Your task to perform on an android device: turn off location Image 0: 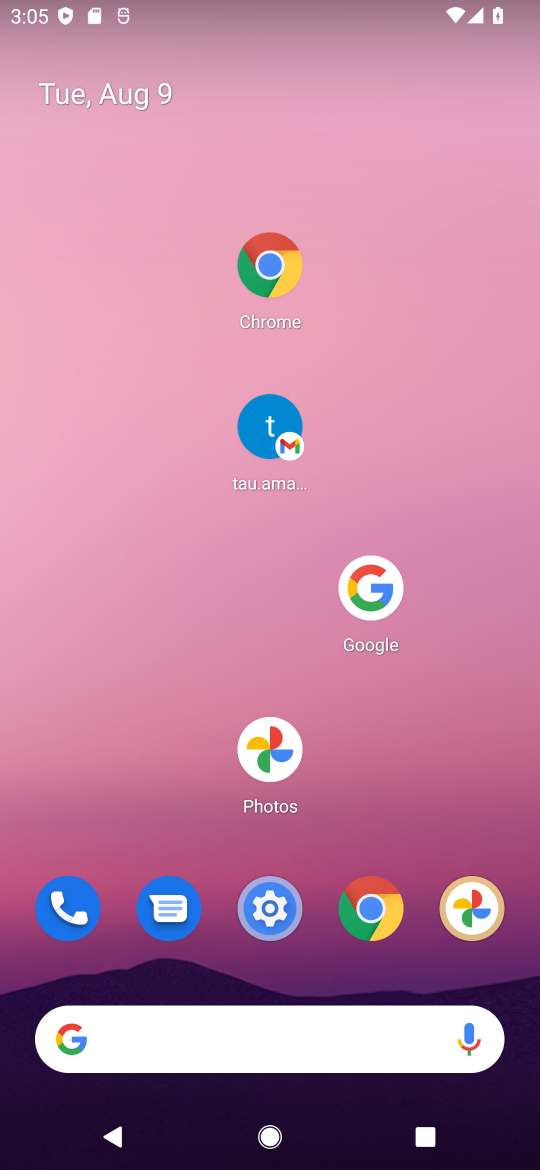
Step 0: click (231, 164)
Your task to perform on an android device: turn off location Image 1: 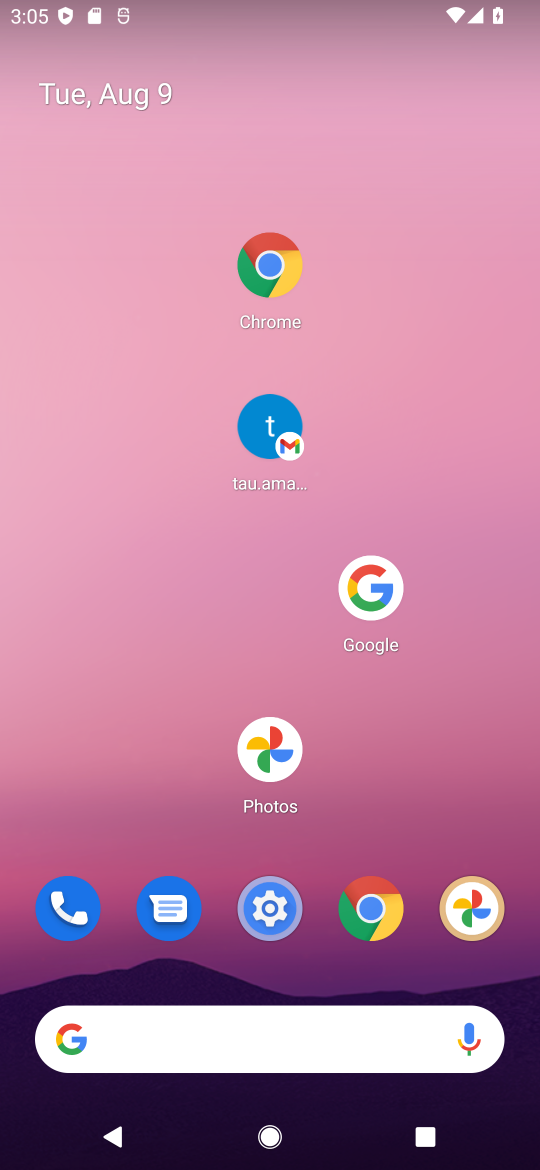
Step 1: drag from (350, 858) to (261, 196)
Your task to perform on an android device: turn off location Image 2: 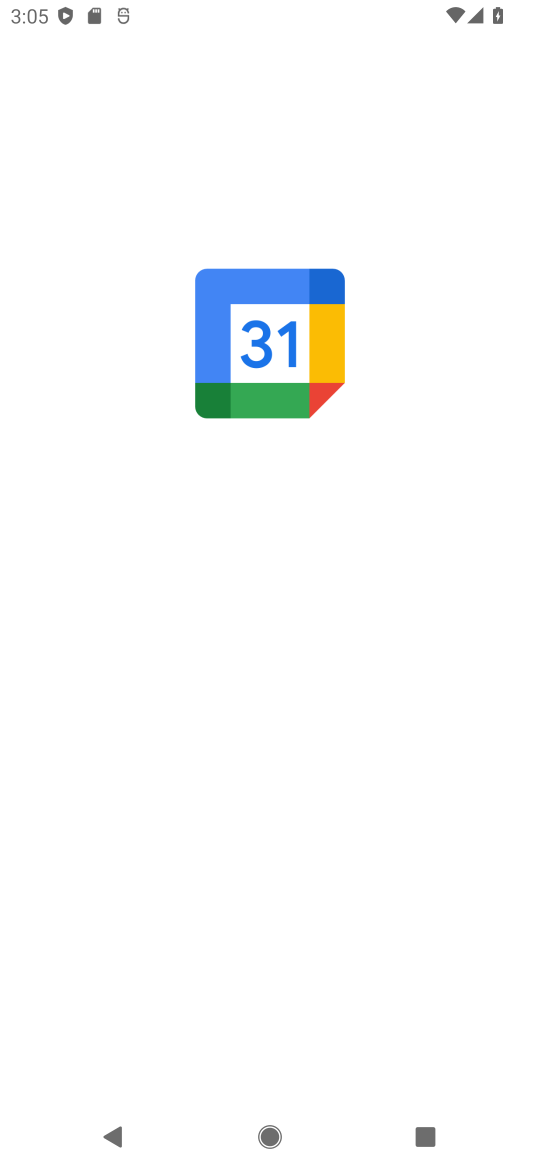
Step 2: drag from (253, 972) to (292, 282)
Your task to perform on an android device: turn off location Image 3: 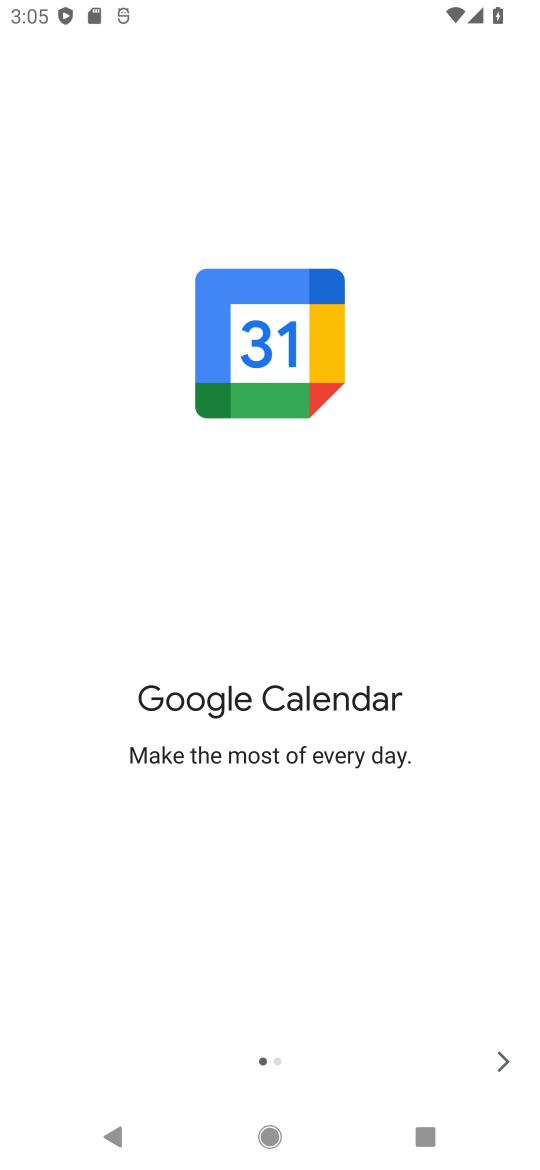
Step 3: drag from (328, 803) to (325, 371)
Your task to perform on an android device: turn off location Image 4: 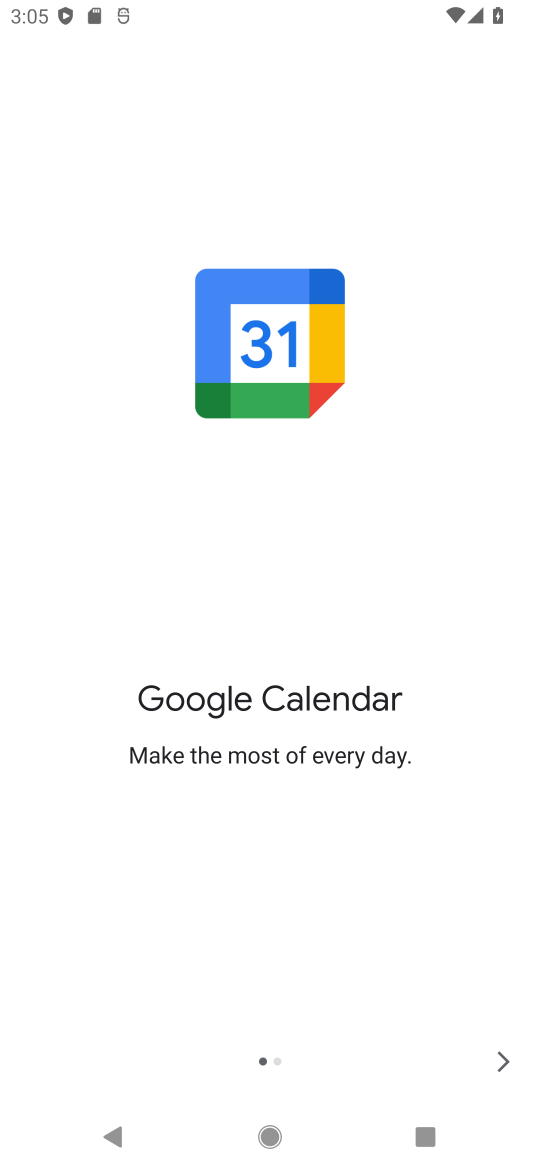
Step 4: click (358, 370)
Your task to perform on an android device: turn off location Image 5: 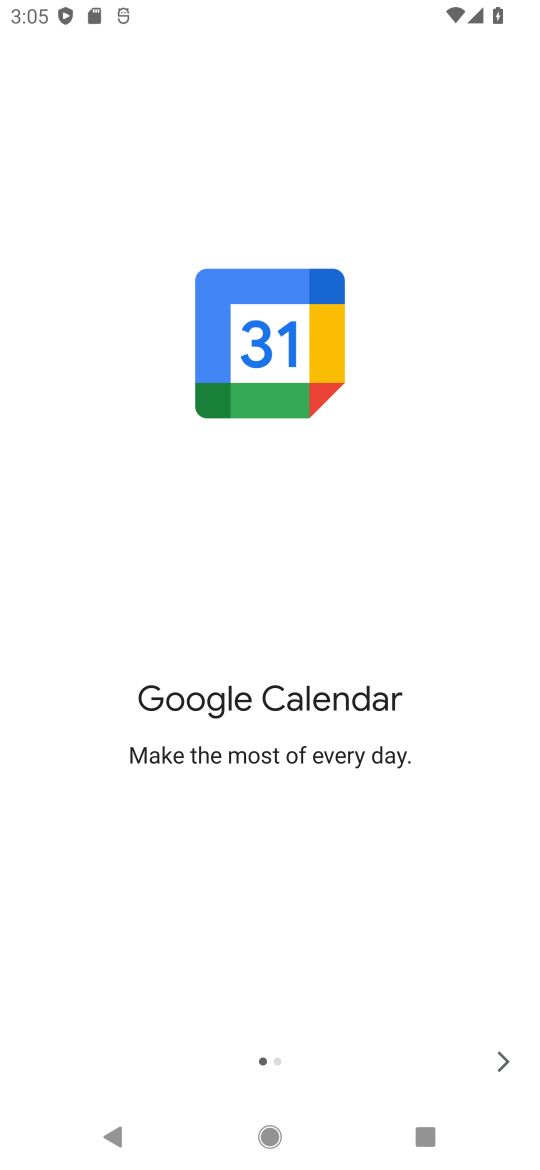
Step 5: drag from (345, 788) to (270, 169)
Your task to perform on an android device: turn off location Image 6: 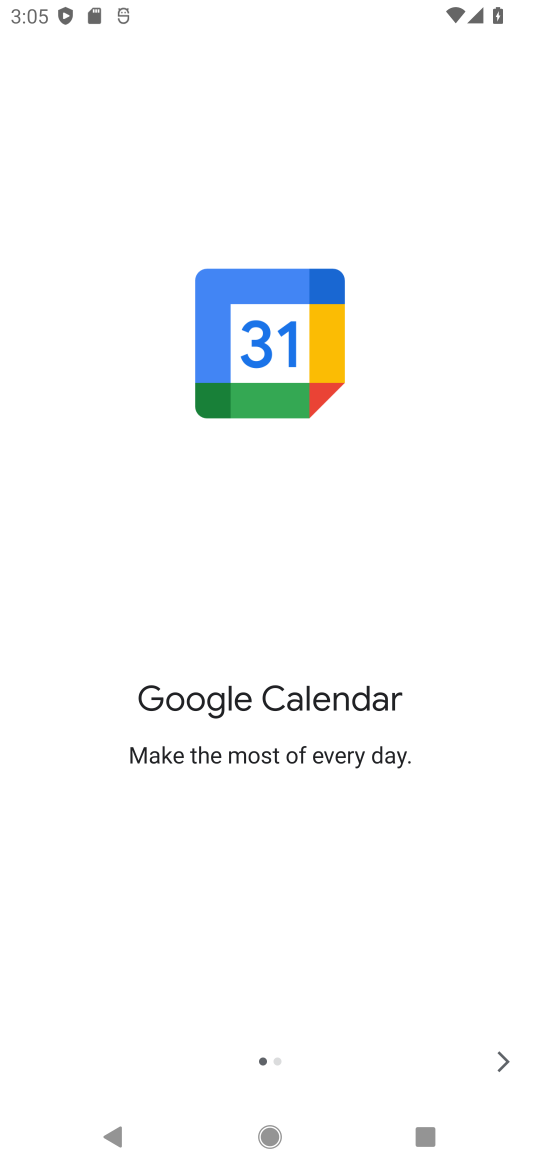
Step 6: press back button
Your task to perform on an android device: turn off location Image 7: 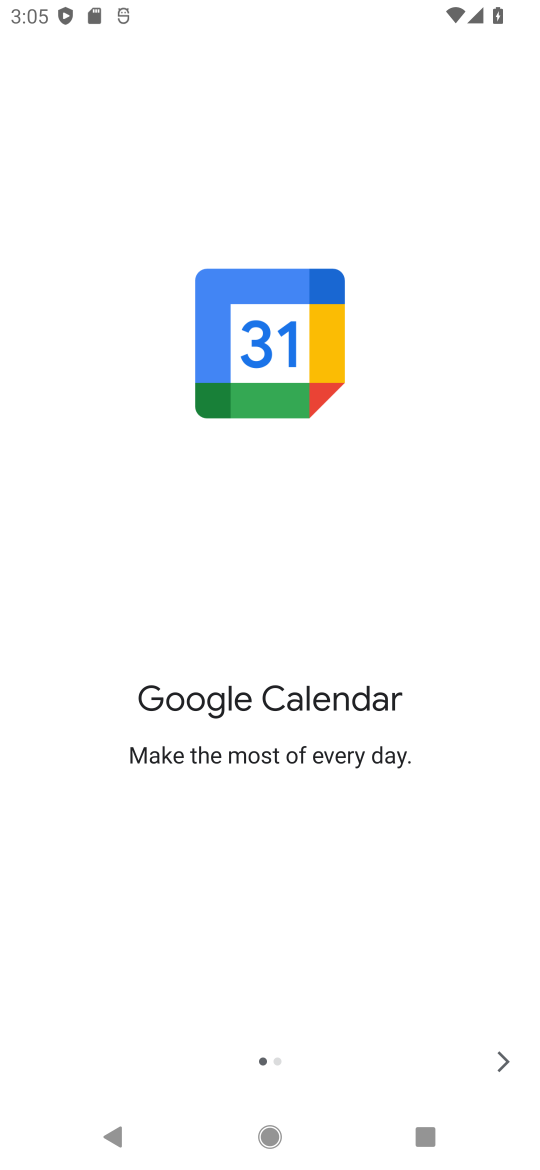
Step 7: press back button
Your task to perform on an android device: turn off location Image 8: 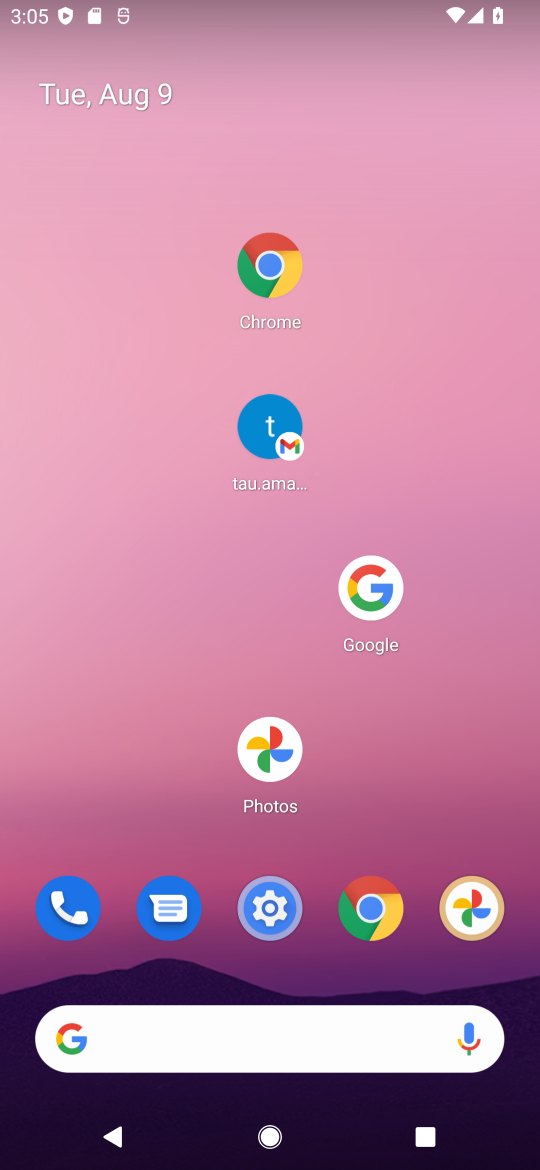
Step 8: press back button
Your task to perform on an android device: turn off location Image 9: 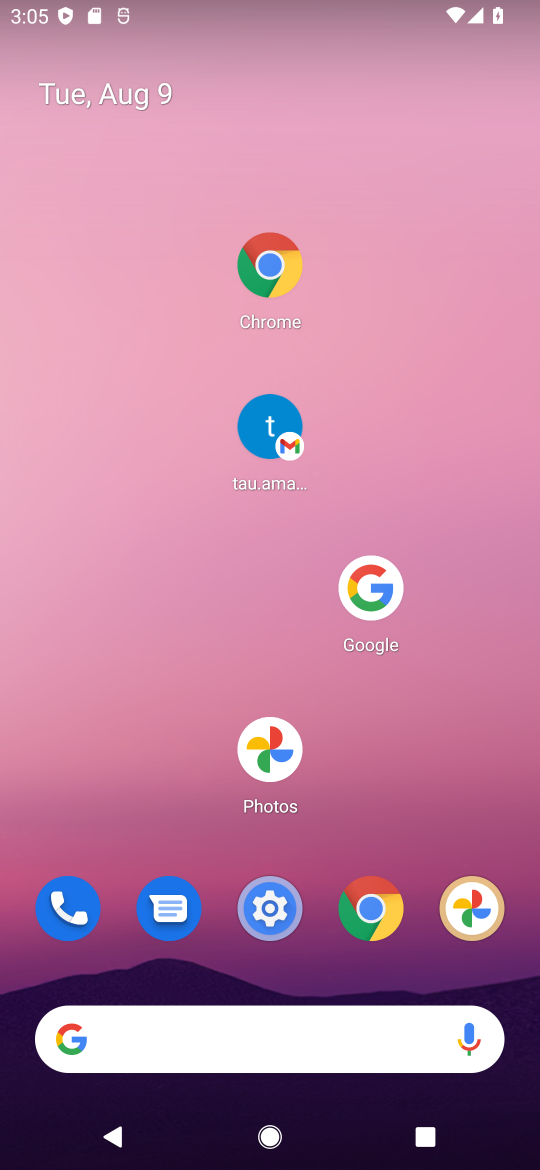
Step 9: press back button
Your task to perform on an android device: turn off location Image 10: 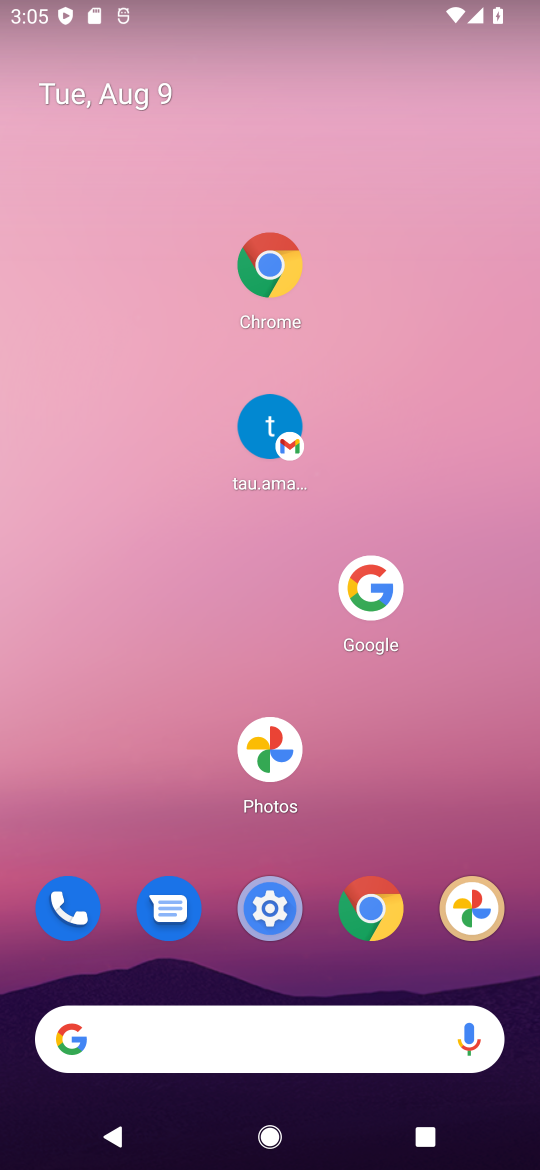
Step 10: drag from (351, 1092) to (255, 0)
Your task to perform on an android device: turn off location Image 11: 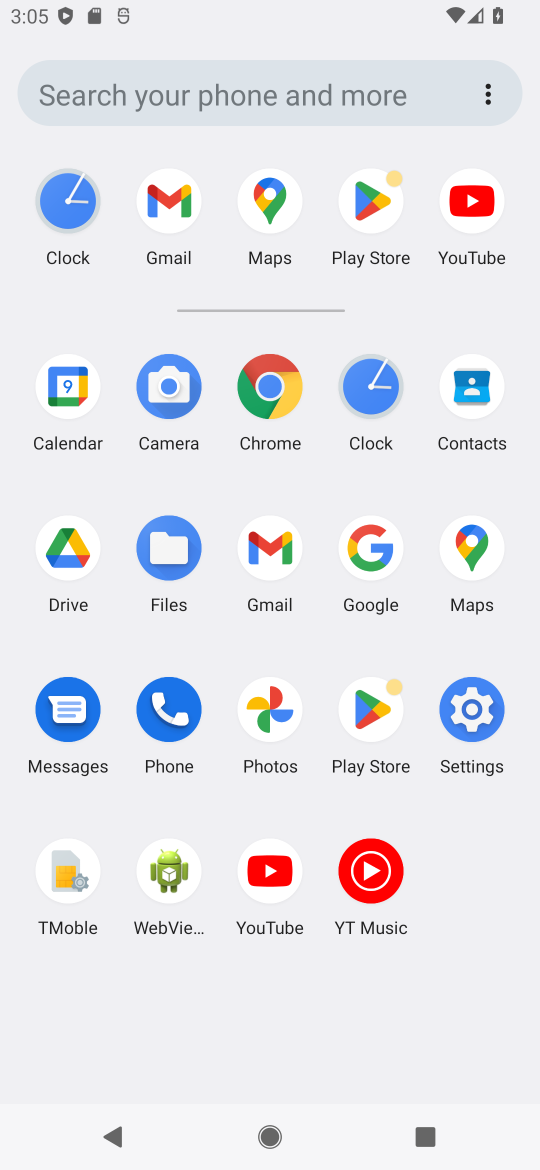
Step 11: drag from (450, 720) to (510, 696)
Your task to perform on an android device: turn off location Image 12: 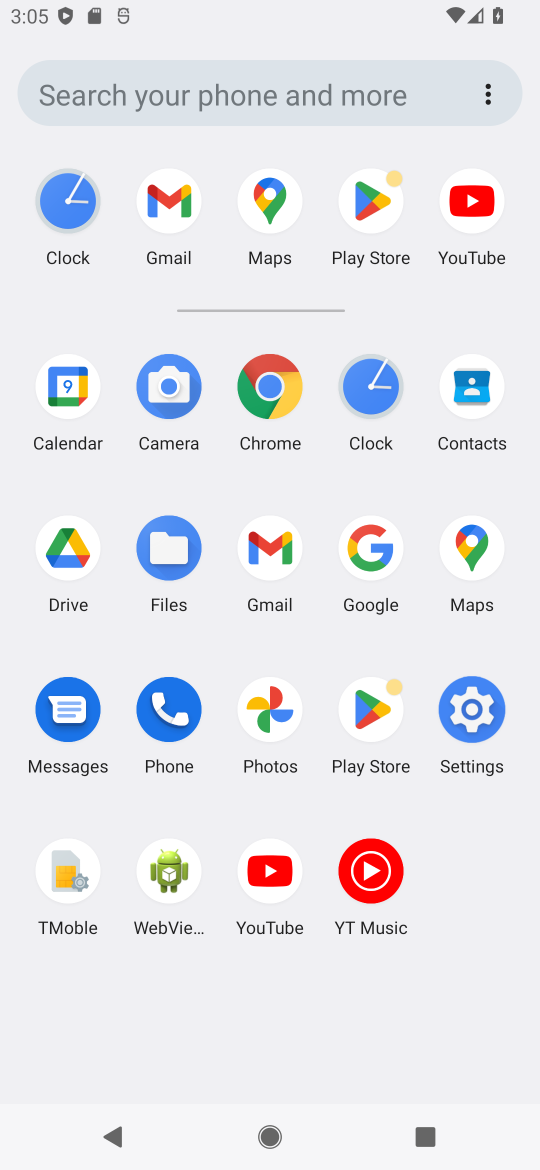
Step 12: click (459, 723)
Your task to perform on an android device: turn off location Image 13: 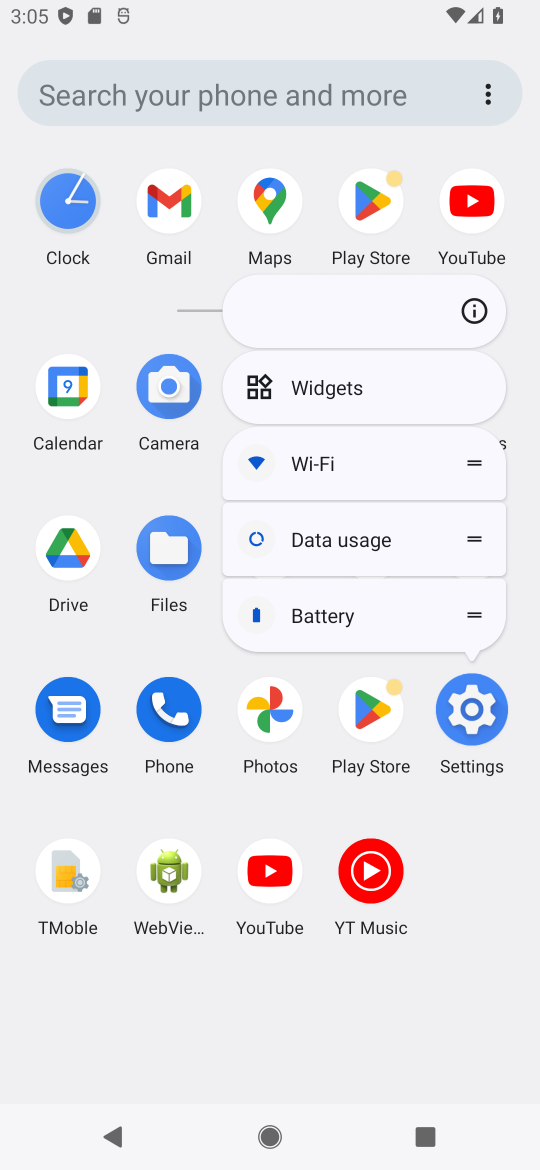
Step 13: click (464, 721)
Your task to perform on an android device: turn off location Image 14: 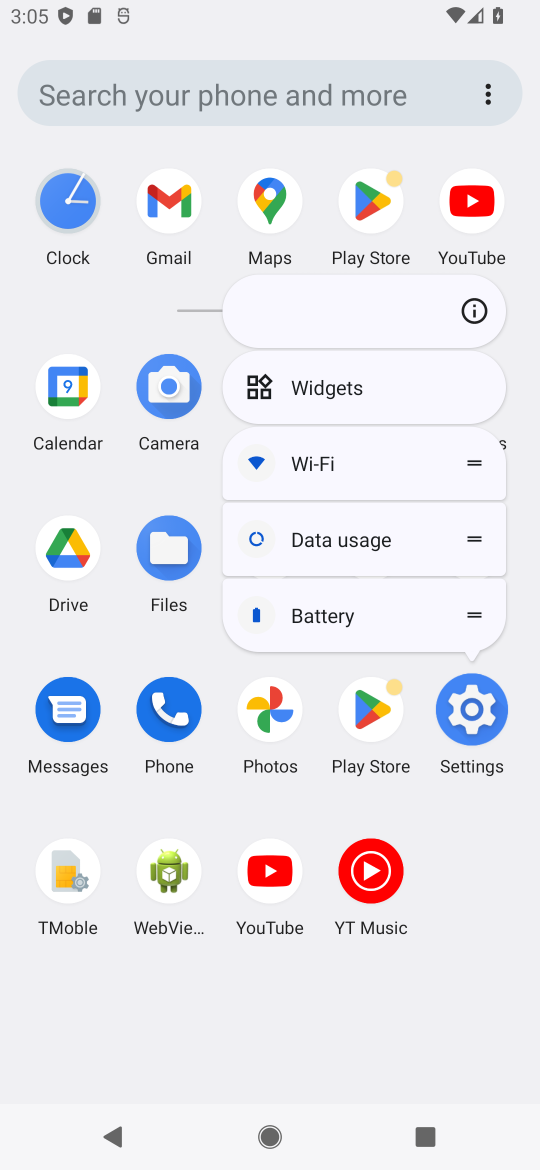
Step 14: click (466, 723)
Your task to perform on an android device: turn off location Image 15: 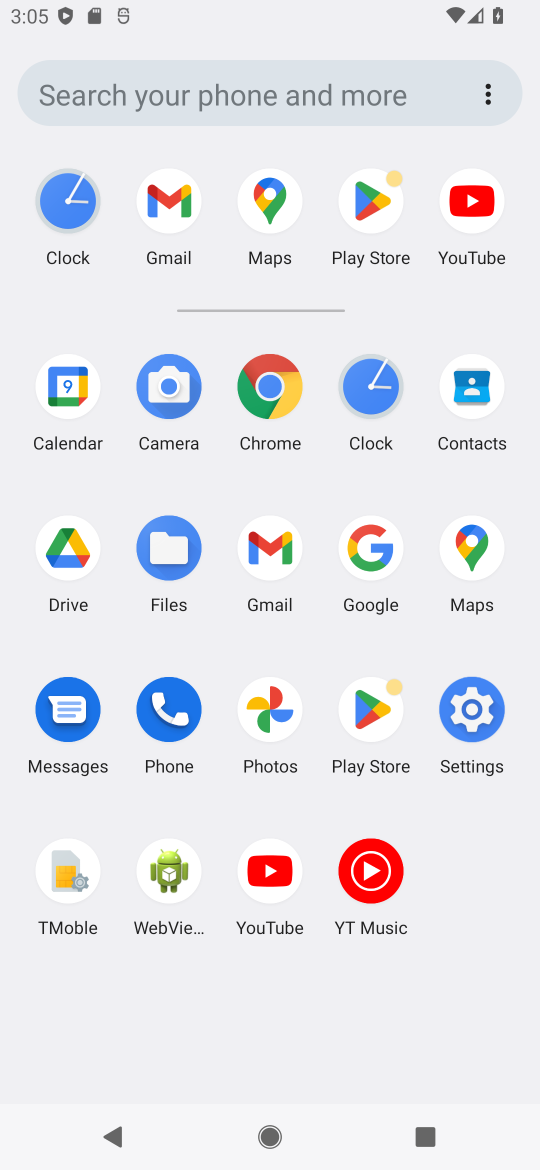
Step 15: click (466, 724)
Your task to perform on an android device: turn off location Image 16: 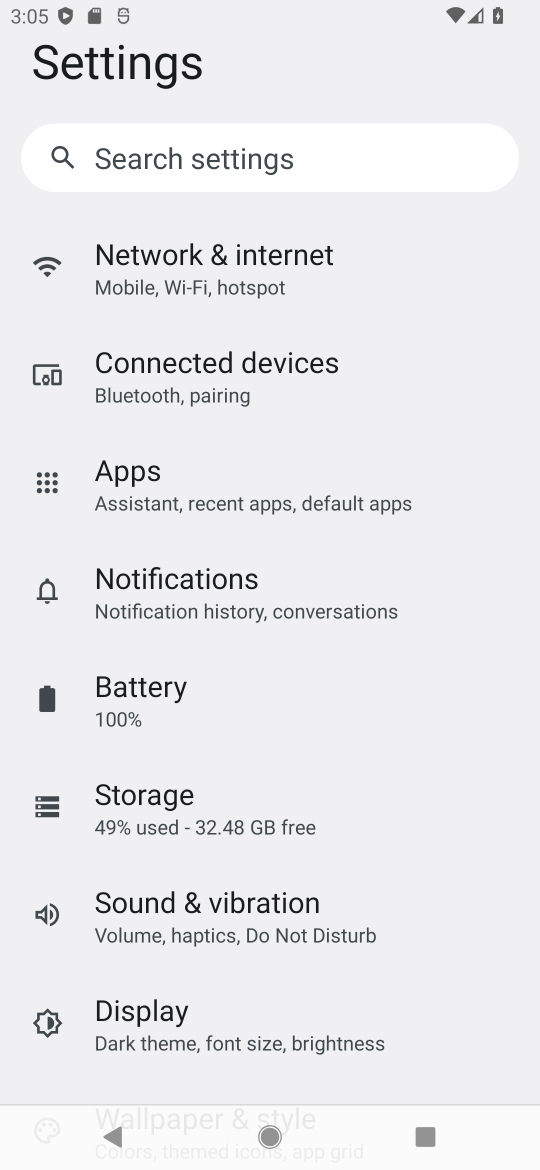
Step 16: drag from (256, 772) to (222, 246)
Your task to perform on an android device: turn off location Image 17: 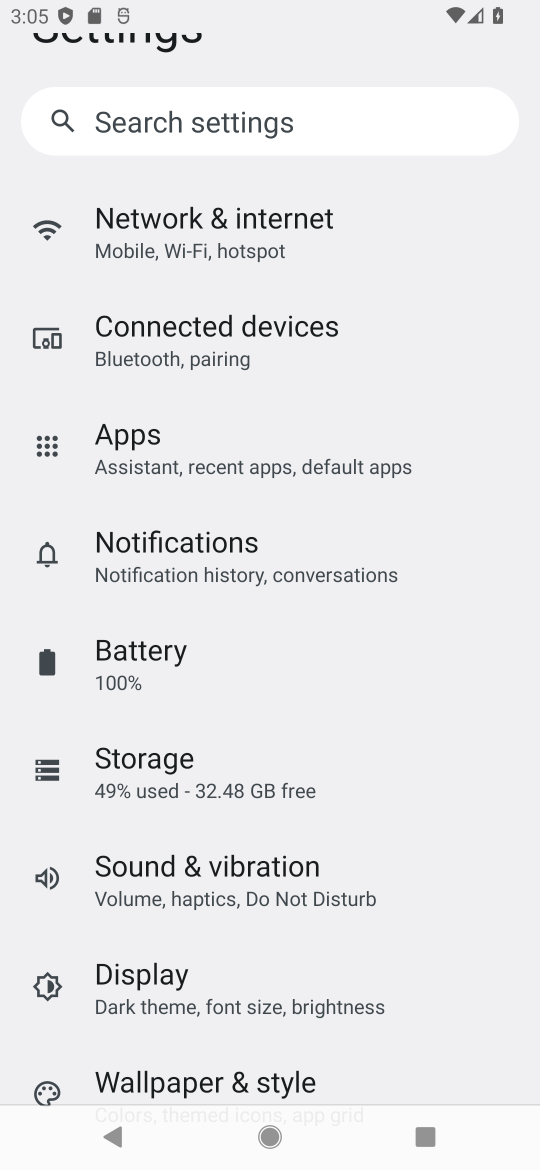
Step 17: drag from (183, 1045) to (104, 360)
Your task to perform on an android device: turn off location Image 18: 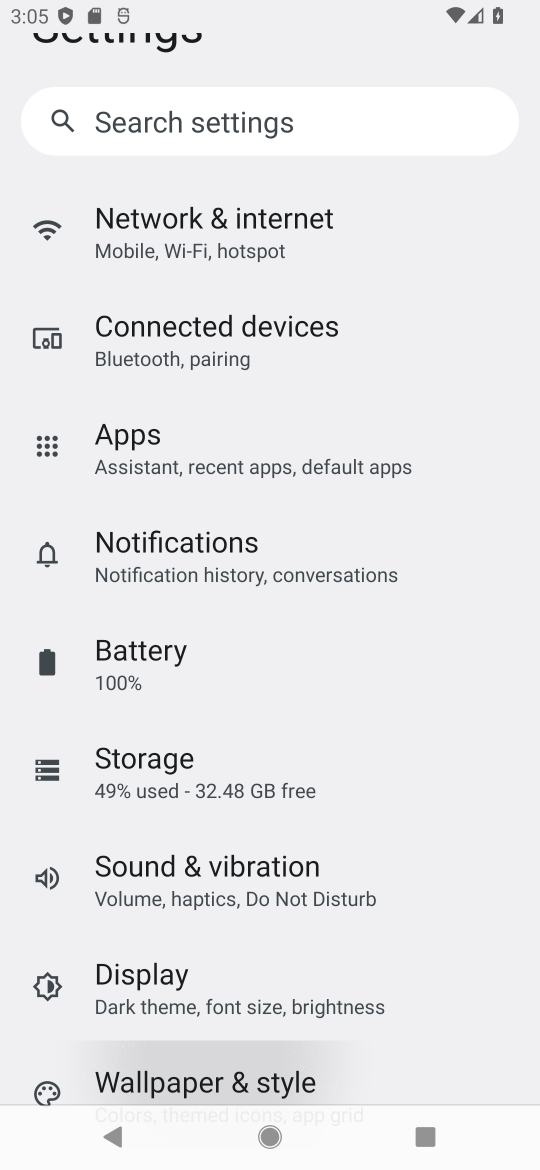
Step 18: drag from (128, 922) to (115, 316)
Your task to perform on an android device: turn off location Image 19: 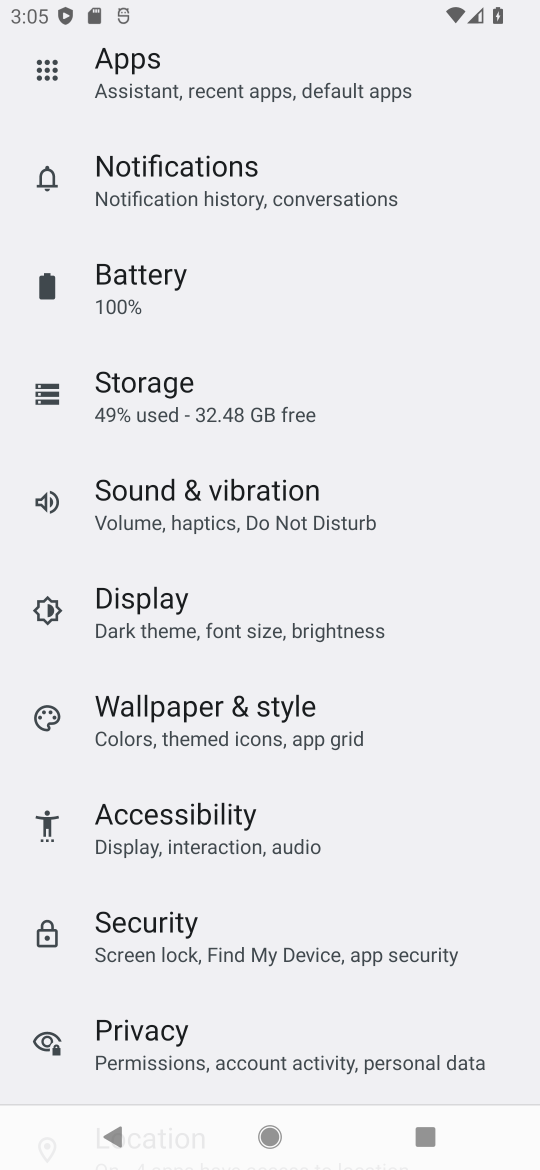
Step 19: drag from (247, 497) to (250, 969)
Your task to perform on an android device: turn off location Image 20: 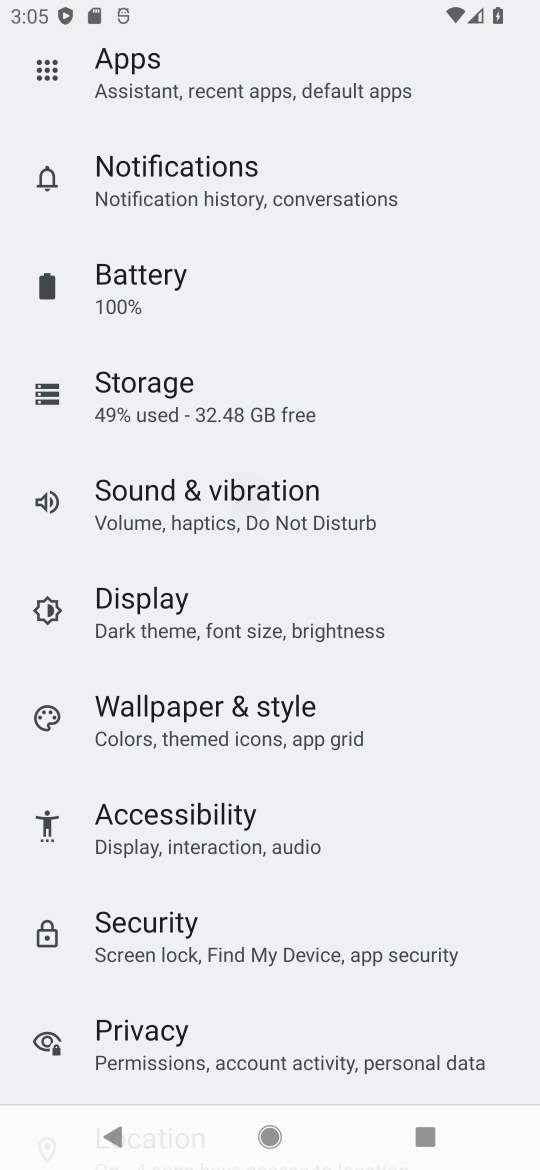
Step 20: drag from (248, 352) to (367, 1093)
Your task to perform on an android device: turn off location Image 21: 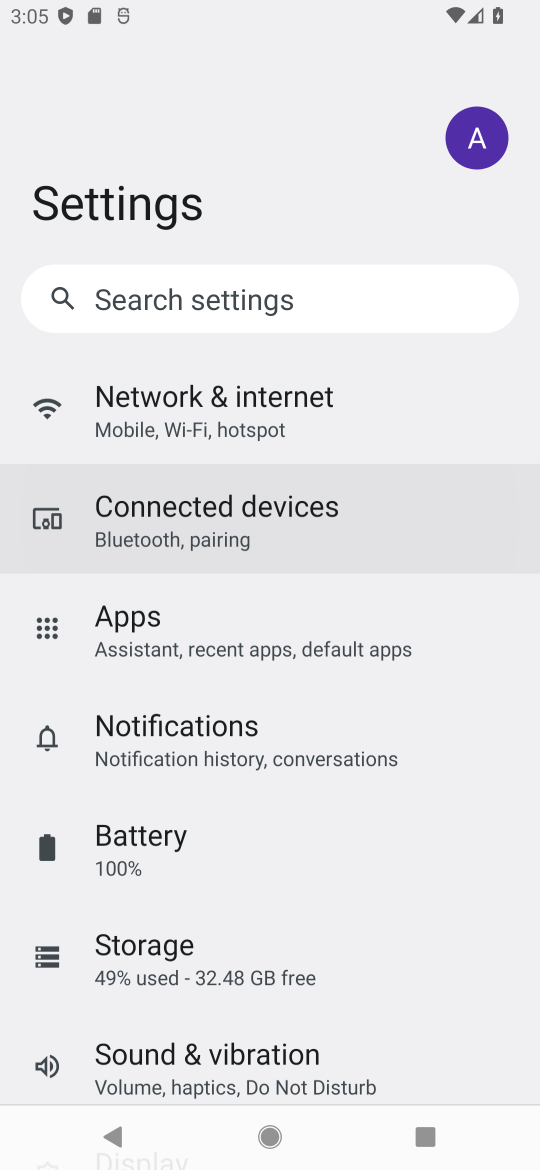
Step 21: drag from (238, 579) to (291, 943)
Your task to perform on an android device: turn off location Image 22: 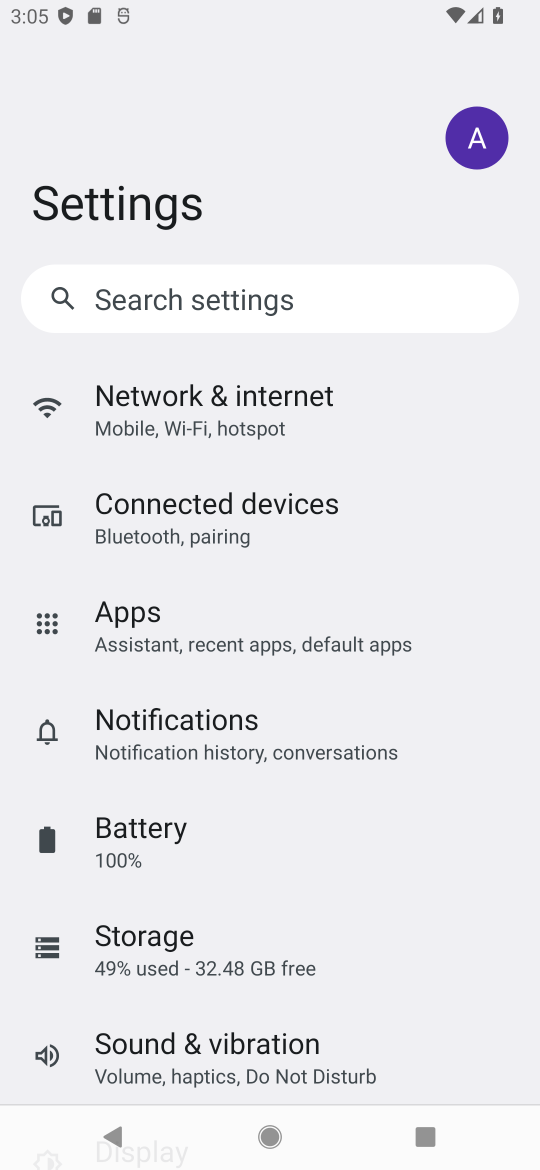
Step 22: drag from (210, 836) to (168, 356)
Your task to perform on an android device: turn off location Image 23: 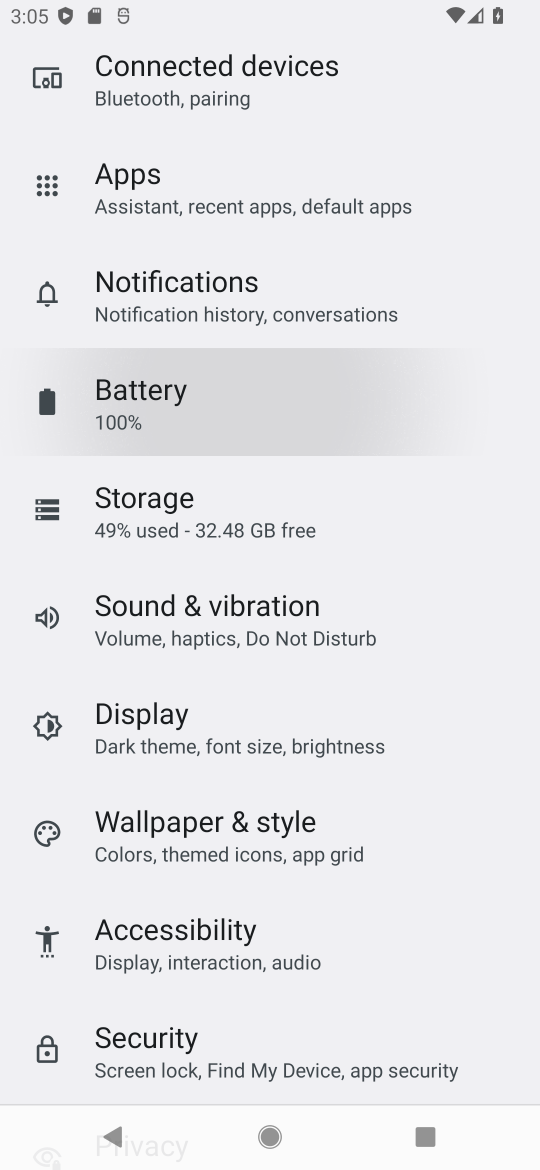
Step 23: drag from (186, 807) to (188, 320)
Your task to perform on an android device: turn off location Image 24: 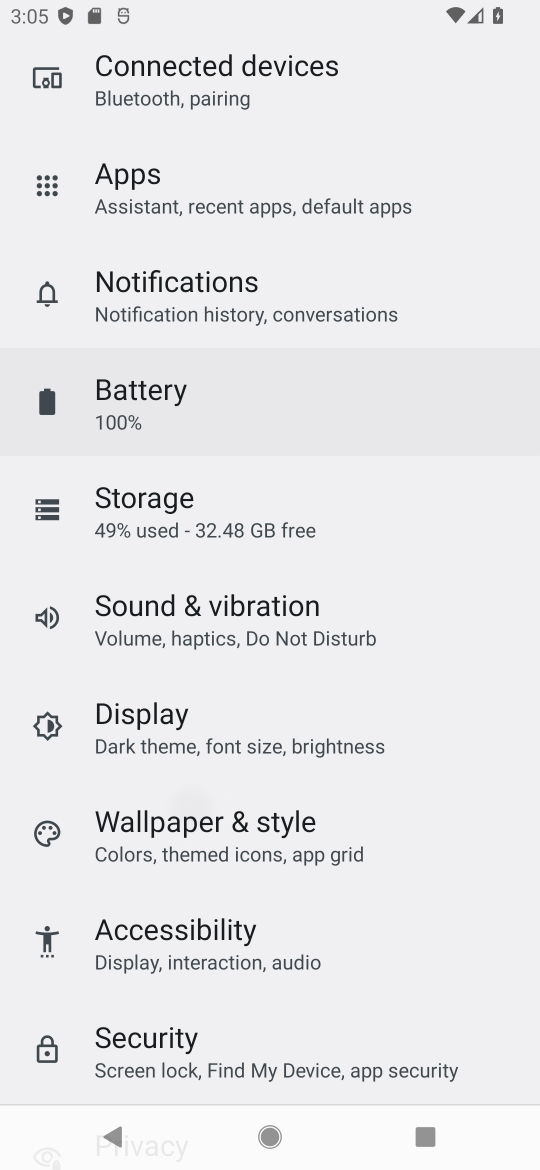
Step 24: drag from (239, 727) to (244, 345)
Your task to perform on an android device: turn off location Image 25: 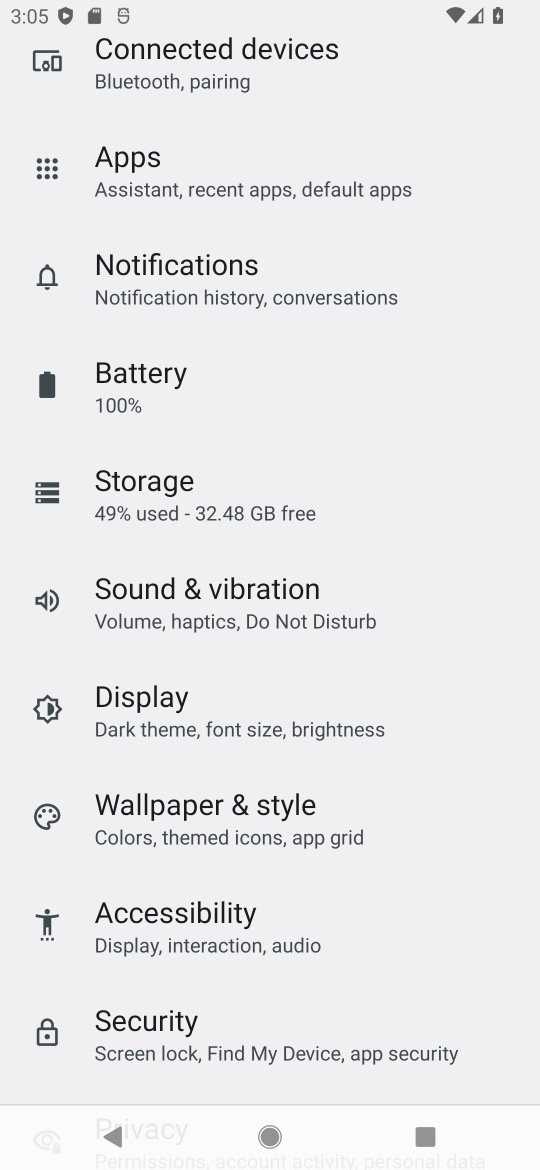
Step 25: drag from (267, 751) to (335, 298)
Your task to perform on an android device: turn off location Image 26: 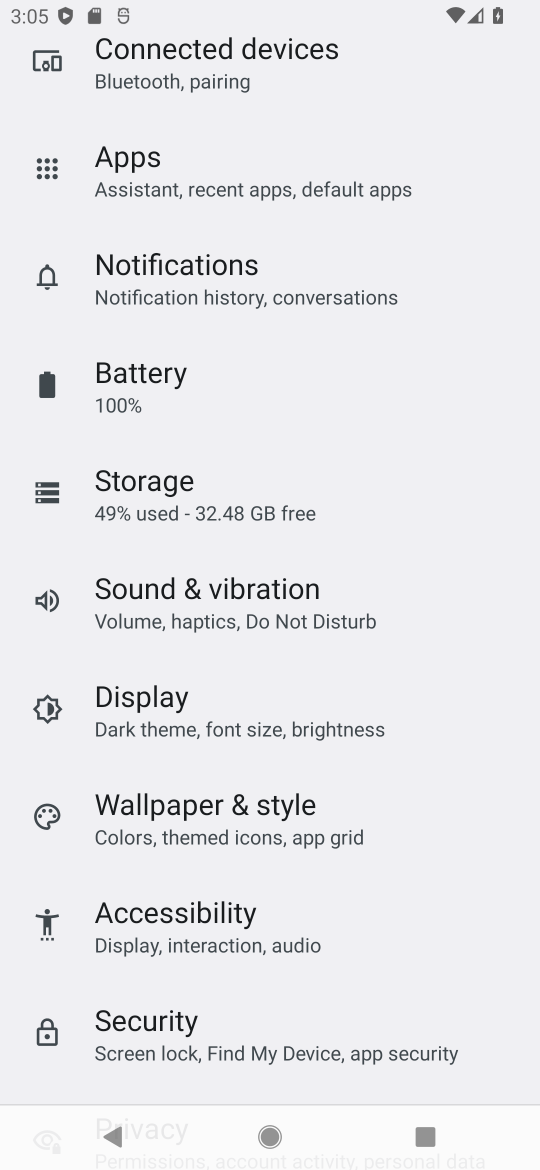
Step 26: drag from (241, 304) to (219, 898)
Your task to perform on an android device: turn off location Image 27: 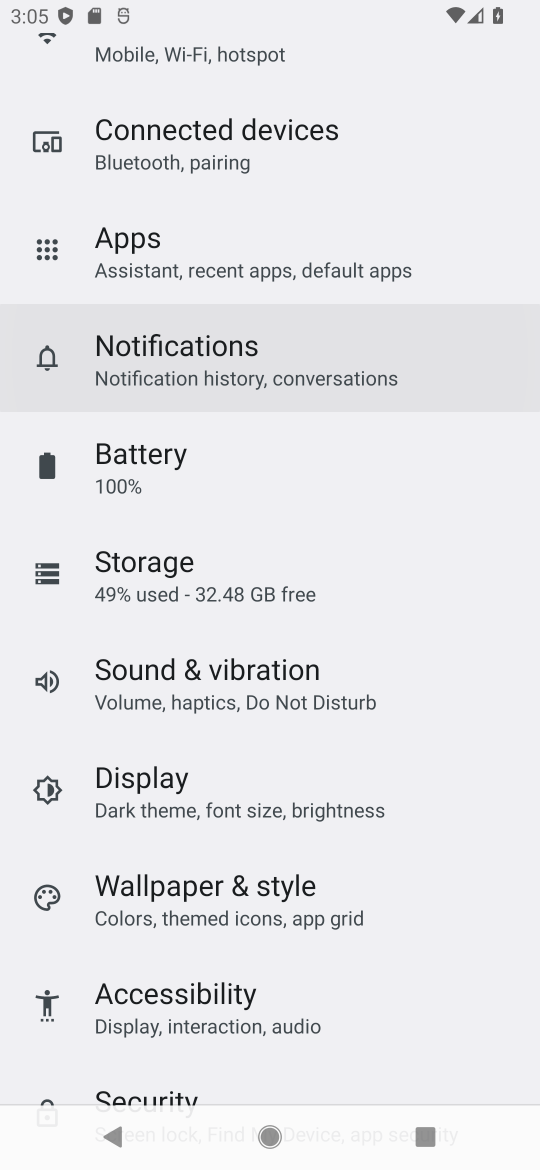
Step 27: drag from (209, 541) to (228, 847)
Your task to perform on an android device: turn off location Image 28: 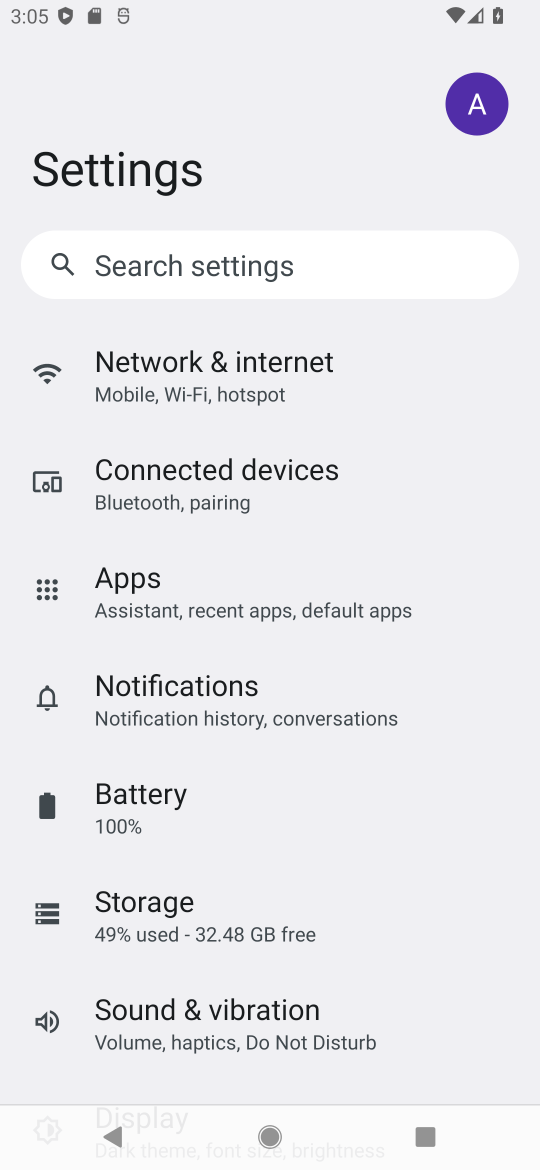
Step 28: drag from (259, 909) to (214, 526)
Your task to perform on an android device: turn off location Image 29: 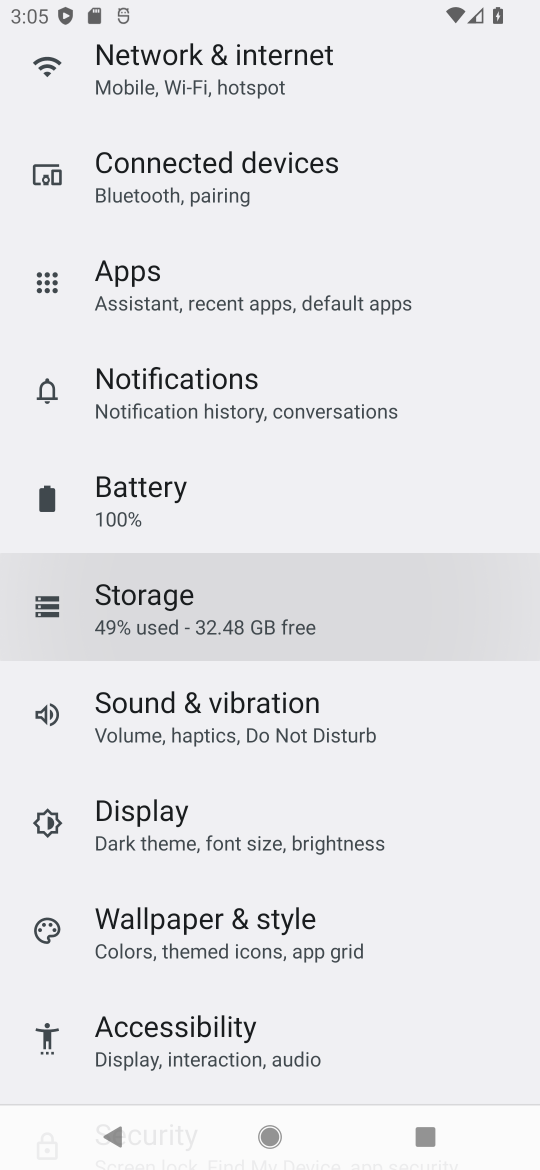
Step 29: drag from (221, 734) to (219, 446)
Your task to perform on an android device: turn off location Image 30: 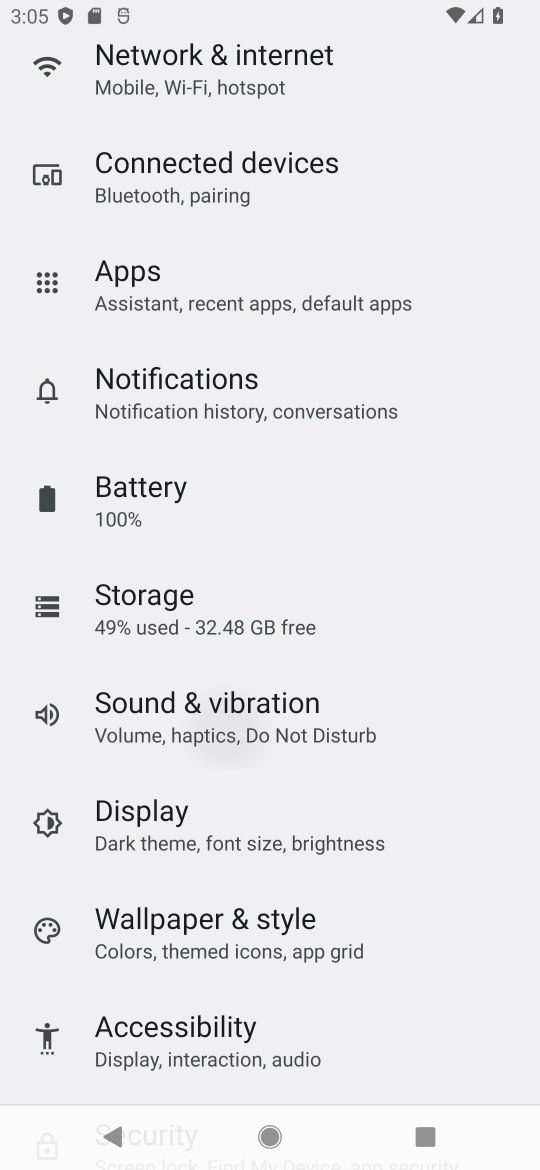
Step 30: drag from (287, 724) to (292, 533)
Your task to perform on an android device: turn off location Image 31: 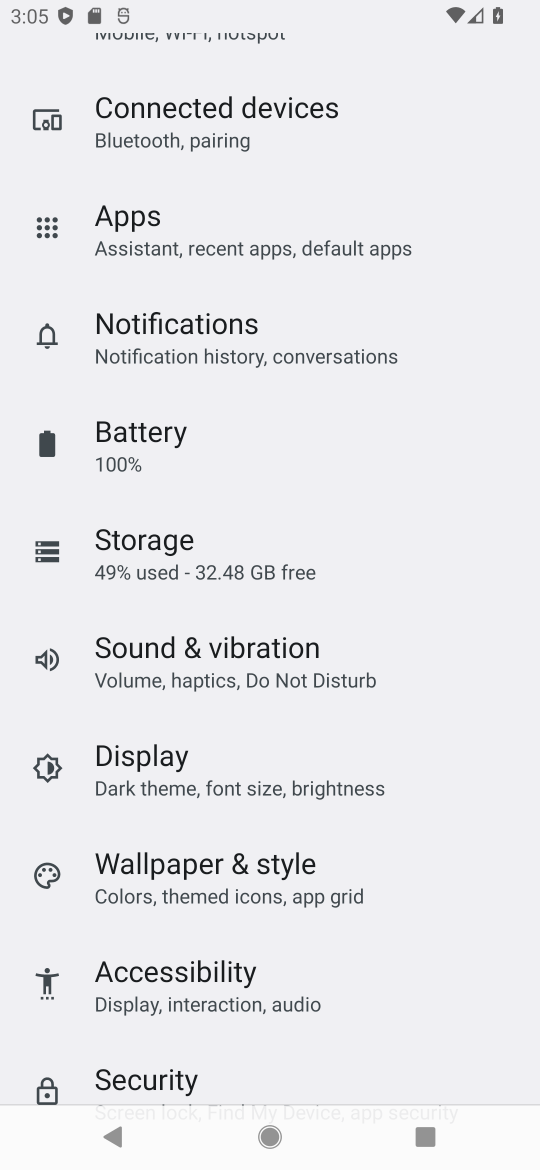
Step 31: drag from (227, 309) to (253, 629)
Your task to perform on an android device: turn off location Image 32: 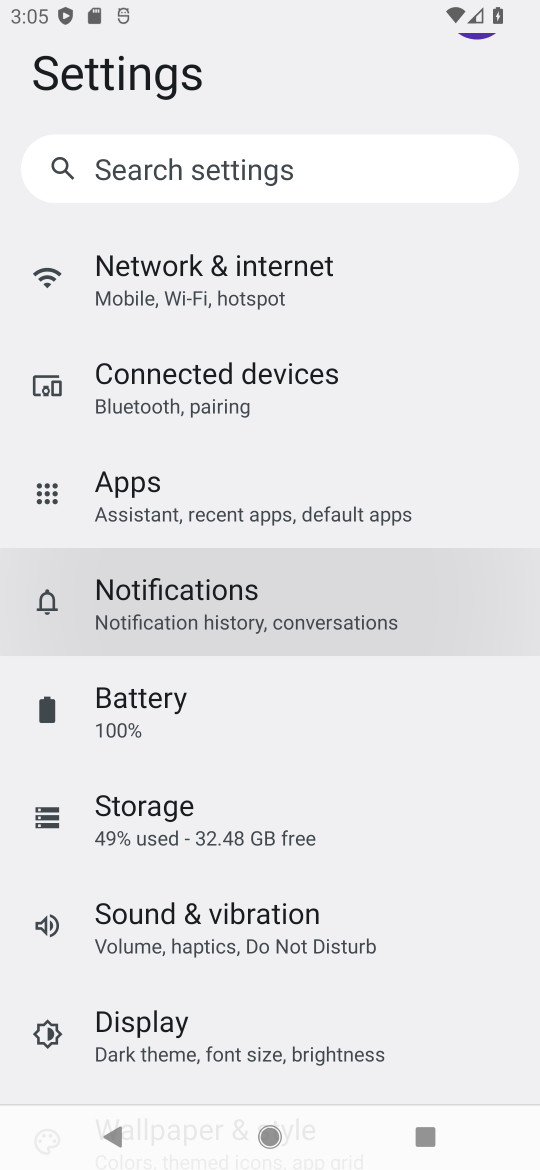
Step 32: drag from (266, 389) to (314, 607)
Your task to perform on an android device: turn off location Image 33: 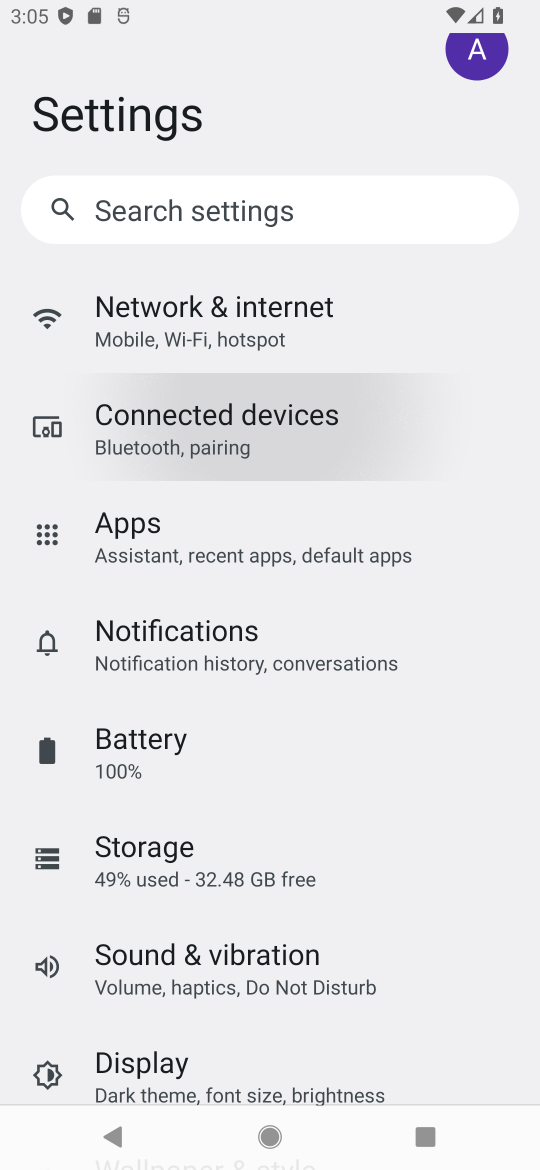
Step 33: drag from (338, 401) to (343, 607)
Your task to perform on an android device: turn off location Image 34: 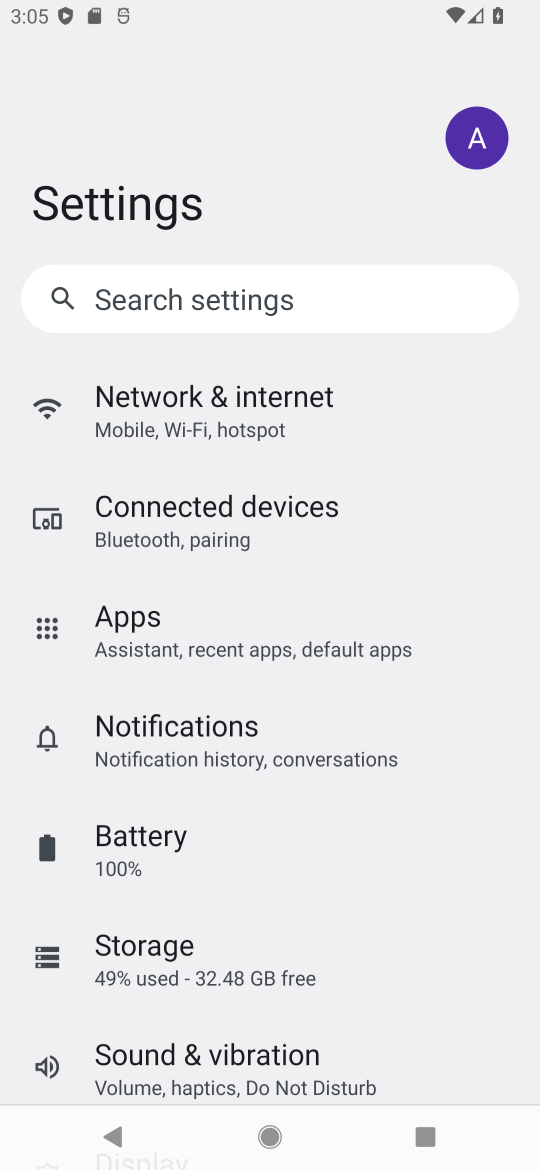
Step 34: drag from (243, 856) to (223, 555)
Your task to perform on an android device: turn off location Image 35: 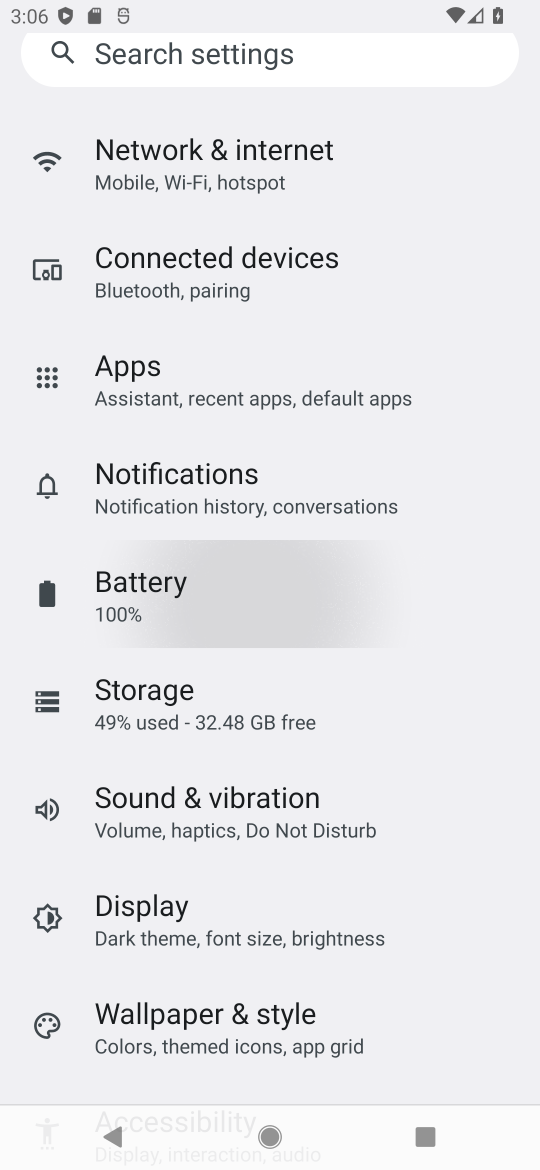
Step 35: drag from (264, 833) to (304, 613)
Your task to perform on an android device: turn off location Image 36: 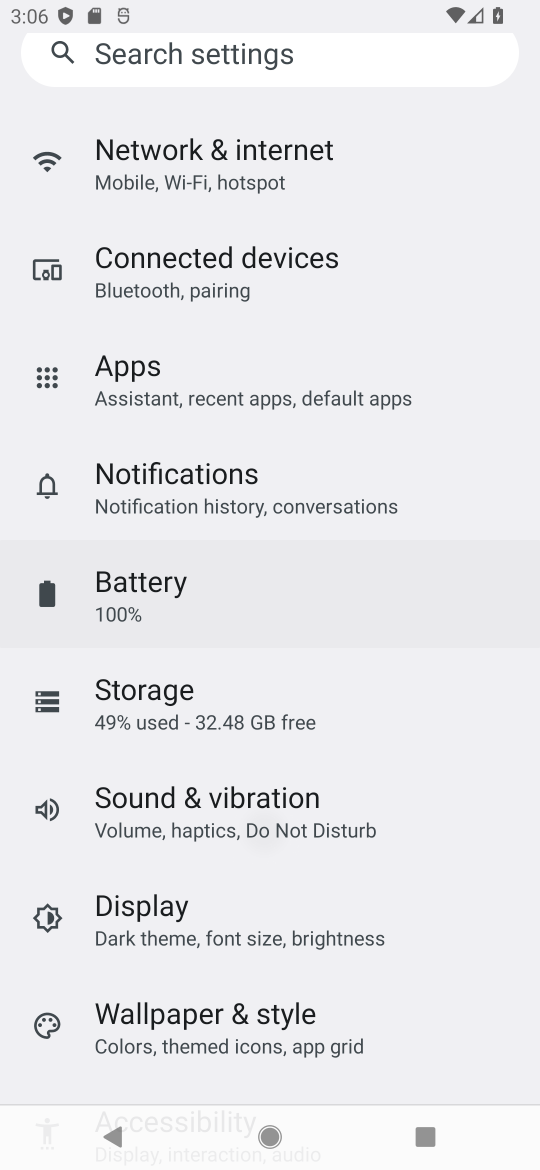
Step 36: drag from (333, 812) to (353, 633)
Your task to perform on an android device: turn off location Image 37: 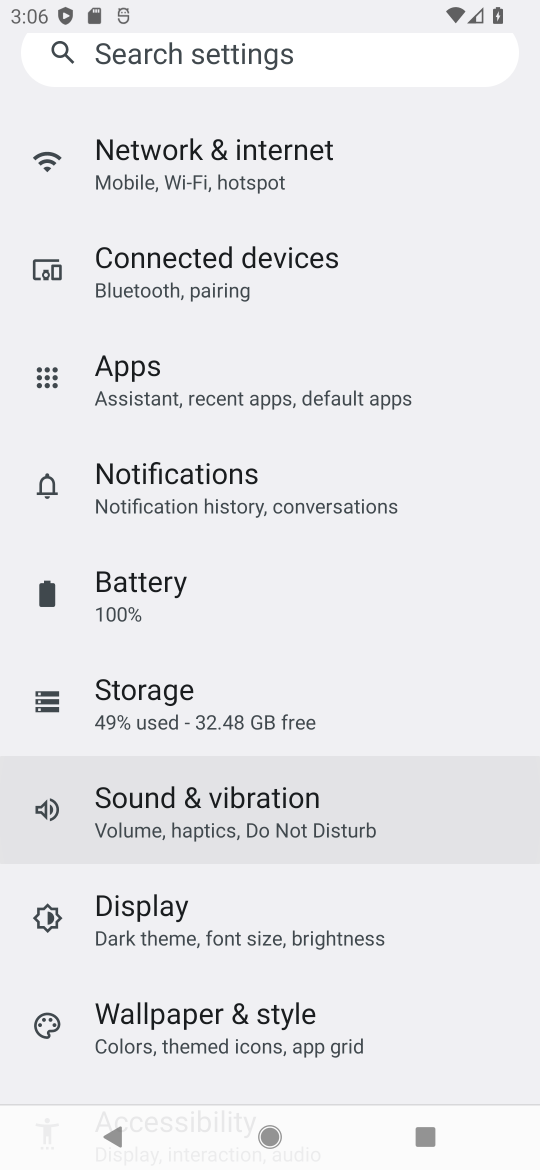
Step 37: drag from (361, 783) to (332, 471)
Your task to perform on an android device: turn off location Image 38: 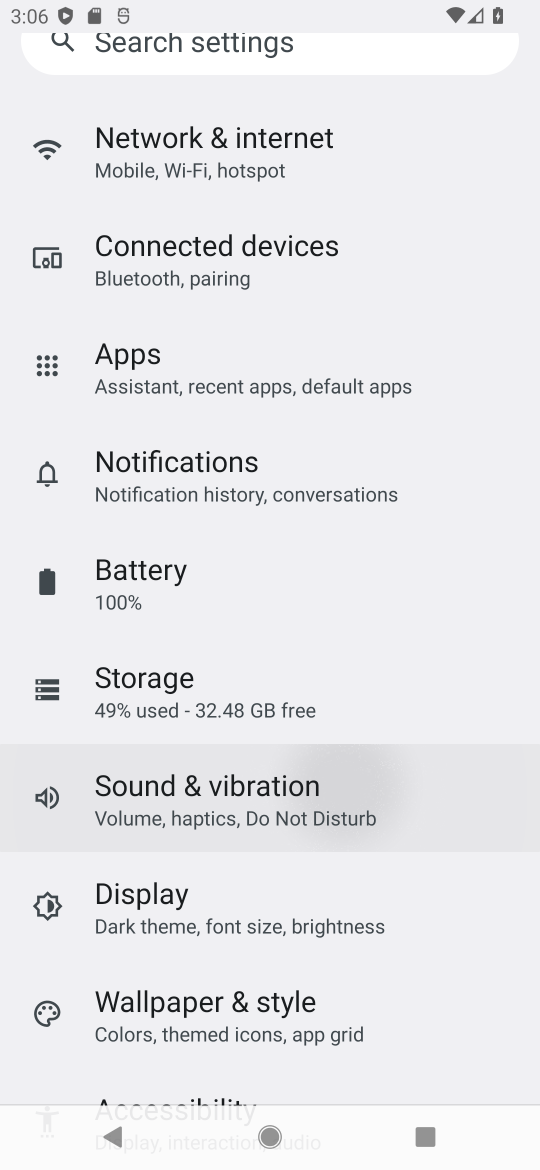
Step 38: drag from (313, 915) to (289, 485)
Your task to perform on an android device: turn off location Image 39: 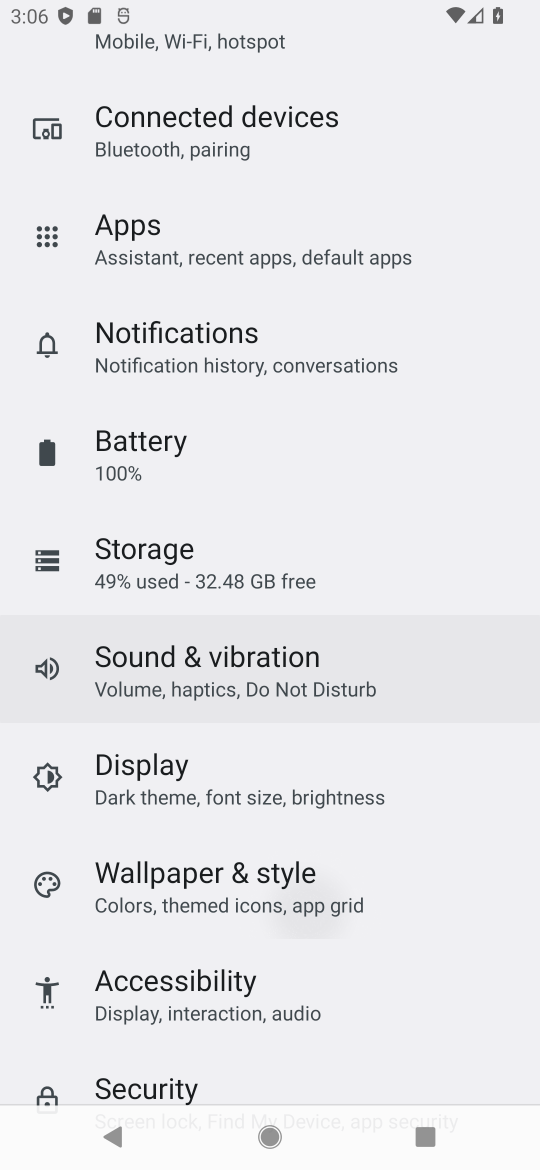
Step 39: drag from (277, 876) to (277, 385)
Your task to perform on an android device: turn off location Image 40: 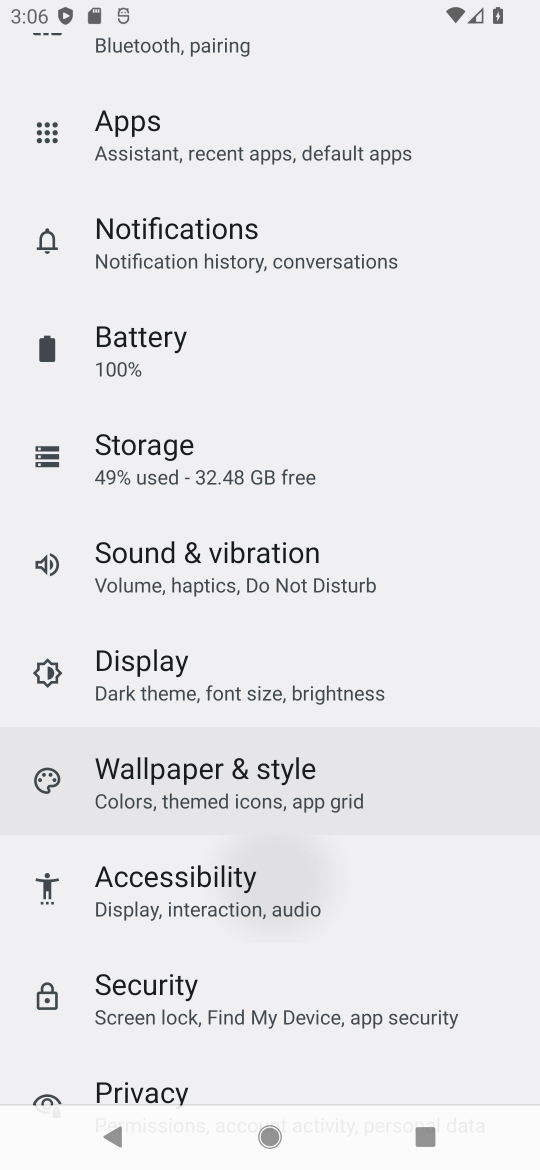
Step 40: drag from (263, 844) to (236, 454)
Your task to perform on an android device: turn off location Image 41: 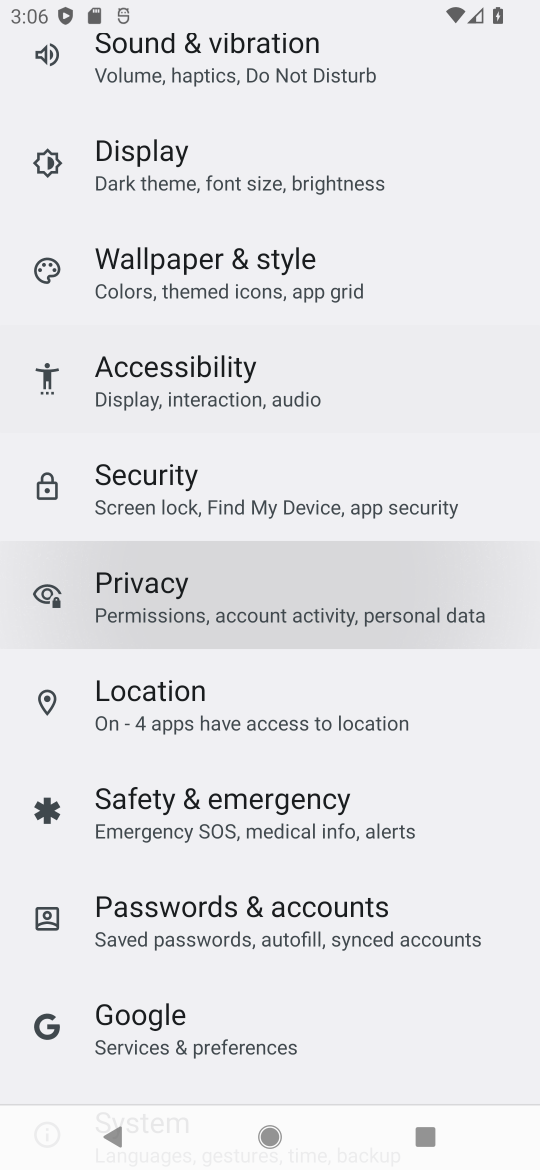
Step 41: drag from (297, 686) to (307, 435)
Your task to perform on an android device: turn off location Image 42: 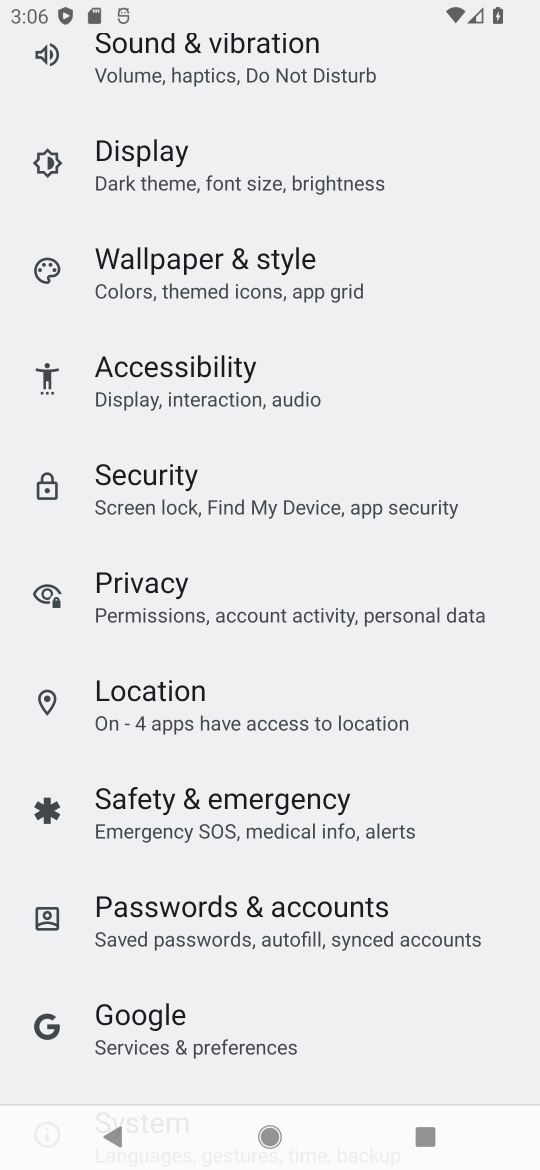
Step 42: click (157, 714)
Your task to perform on an android device: turn off location Image 43: 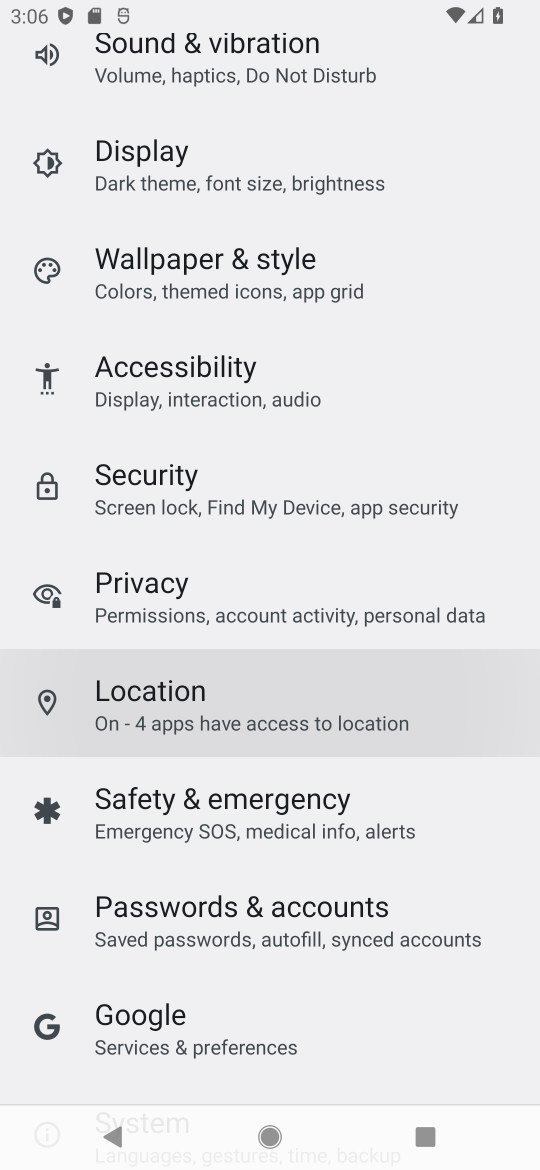
Step 43: click (178, 715)
Your task to perform on an android device: turn off location Image 44: 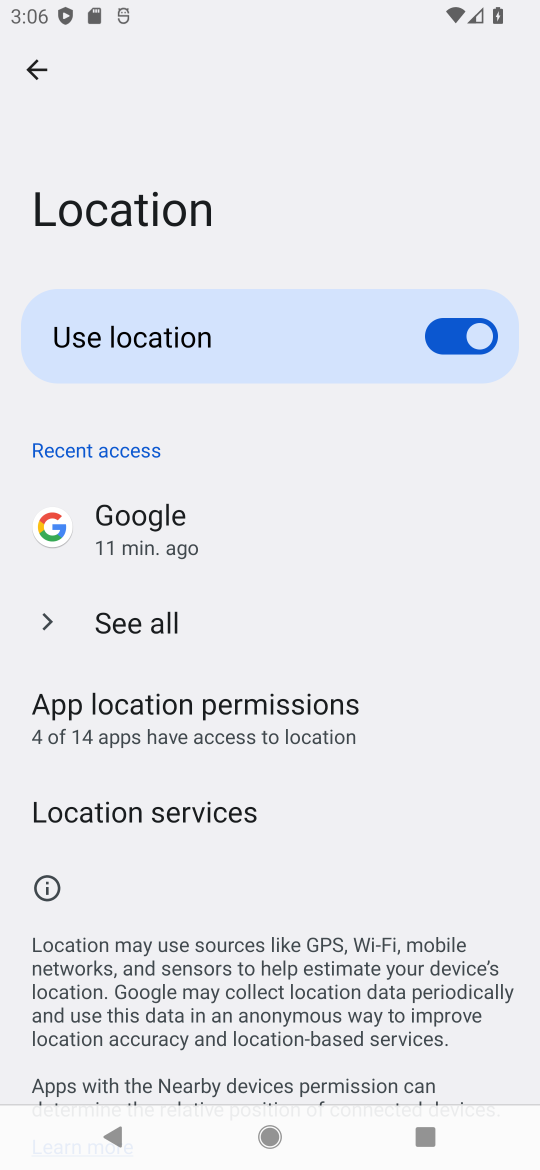
Step 44: click (487, 330)
Your task to perform on an android device: turn off location Image 45: 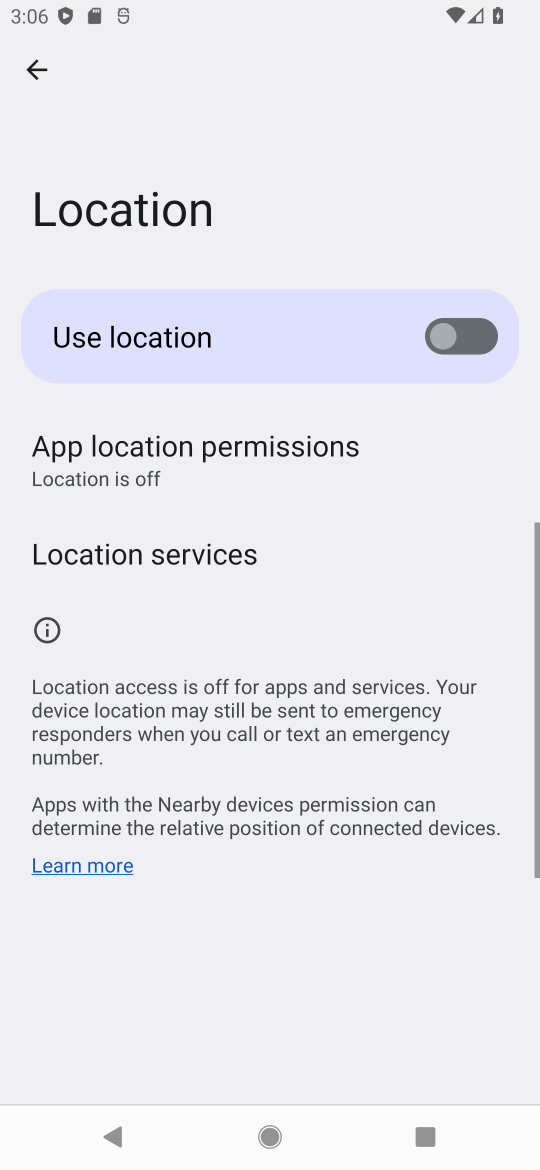
Step 45: task complete